Your task to perform on an android device: Search for the best selling coffee table on Crate & Barrel Image 0: 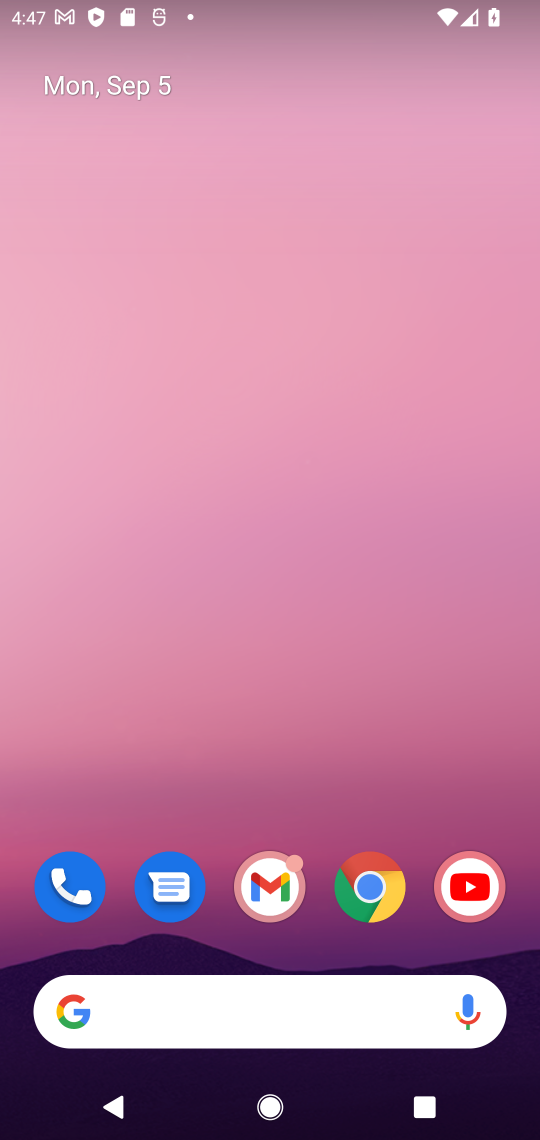
Step 0: drag from (387, 780) to (372, 17)
Your task to perform on an android device: Search for the best selling coffee table on Crate & Barrel Image 1: 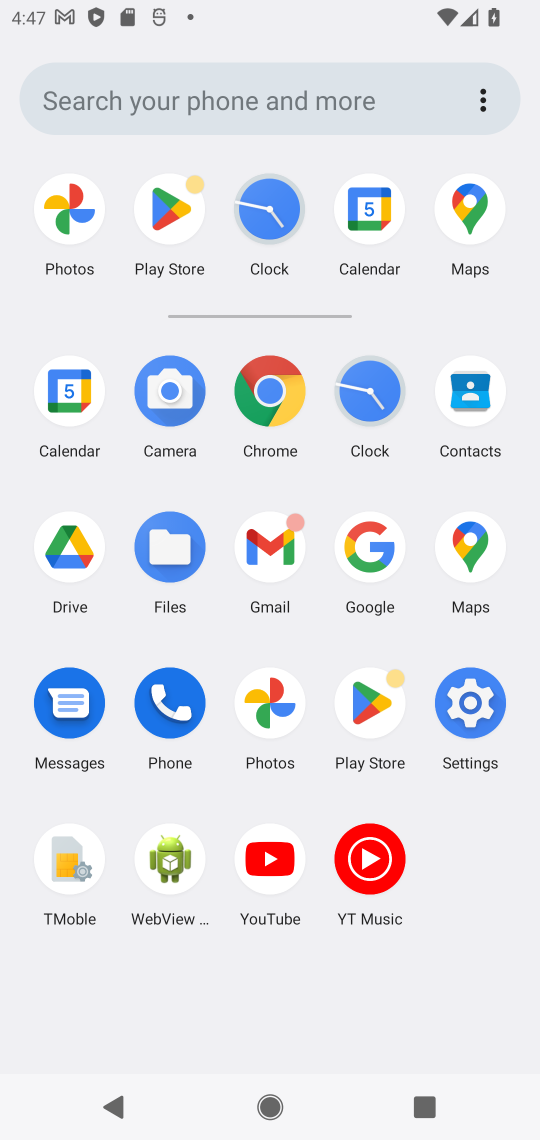
Step 1: click (268, 387)
Your task to perform on an android device: Search for the best selling coffee table on Crate & Barrel Image 2: 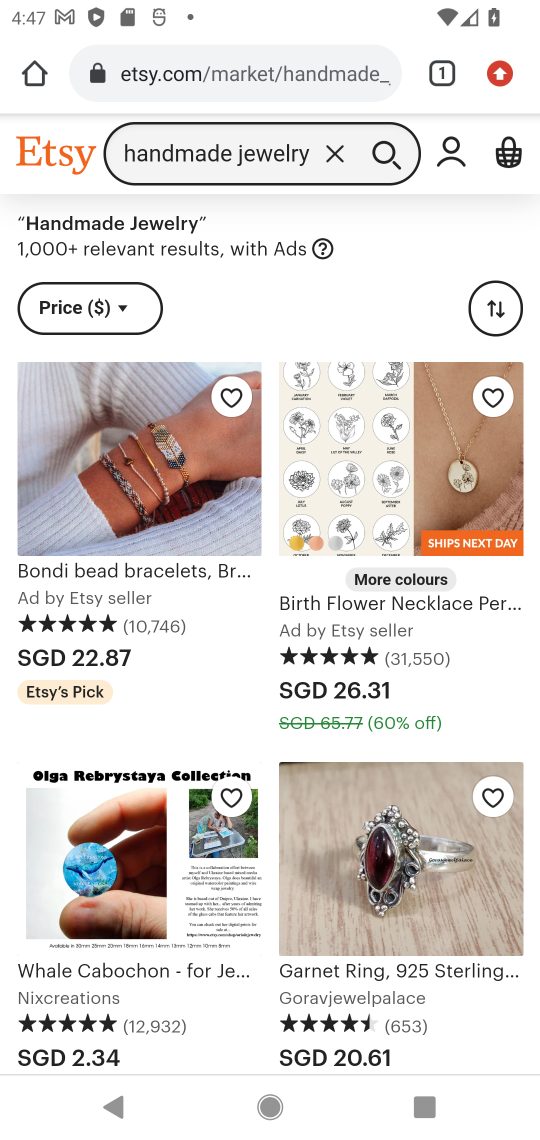
Step 2: click (286, 81)
Your task to perform on an android device: Search for the best selling coffee table on Crate & Barrel Image 3: 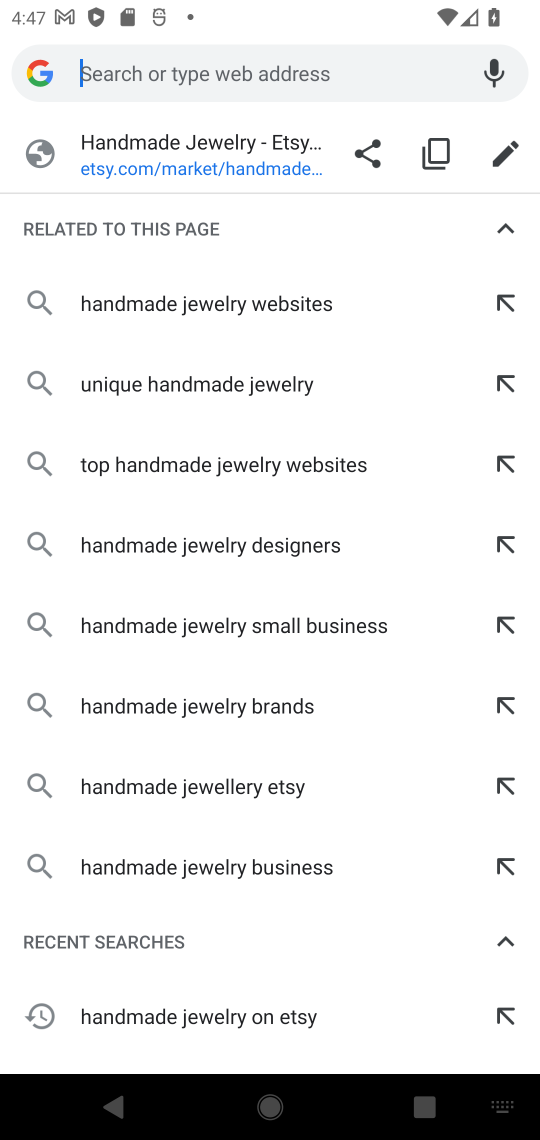
Step 3: type "best selling coffee table on Crate & barrel"
Your task to perform on an android device: Search for the best selling coffee table on Crate & Barrel Image 4: 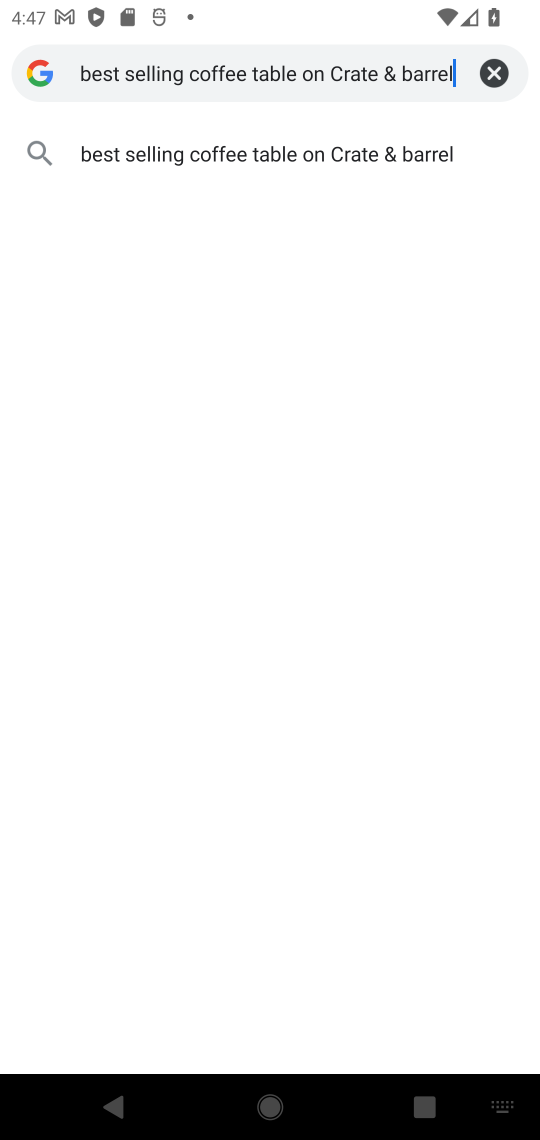
Step 4: press enter
Your task to perform on an android device: Search for the best selling coffee table on Crate & Barrel Image 5: 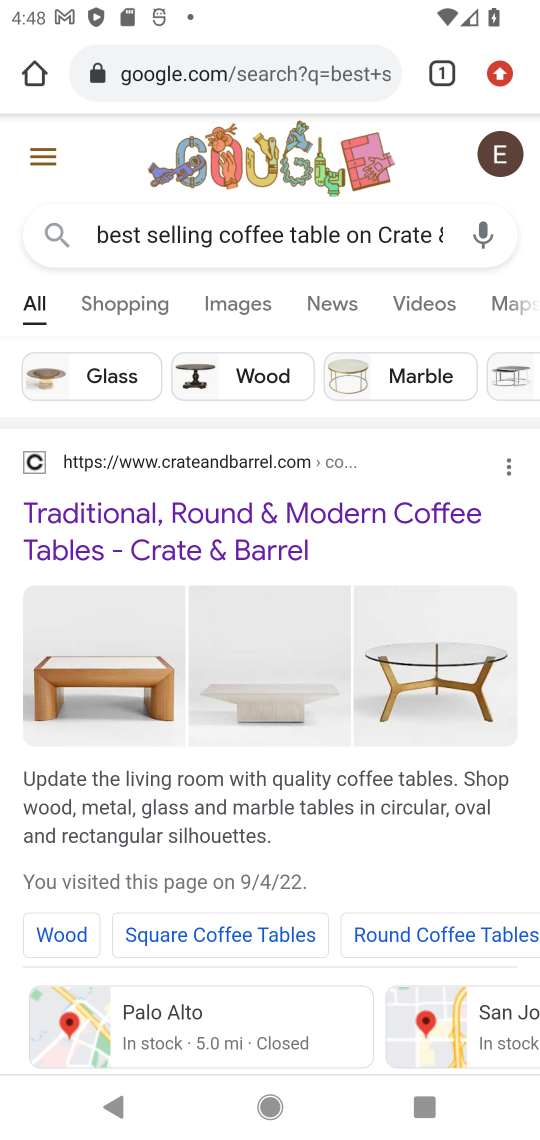
Step 5: click (318, 520)
Your task to perform on an android device: Search for the best selling coffee table on Crate & Barrel Image 6: 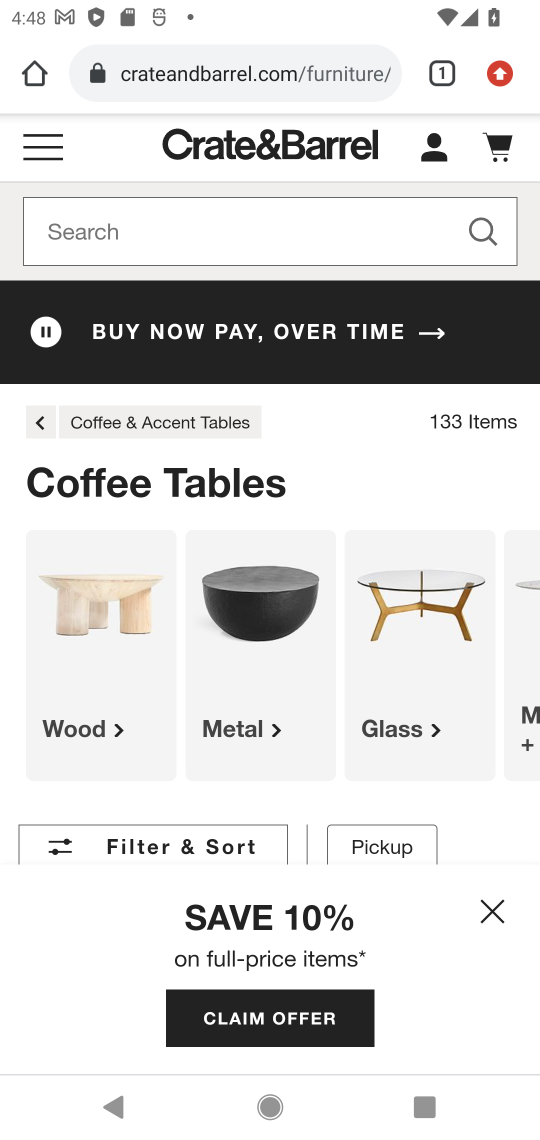
Step 6: task complete